Your task to perform on an android device: Open Google Chrome and click the shortcut for Amazon.com Image 0: 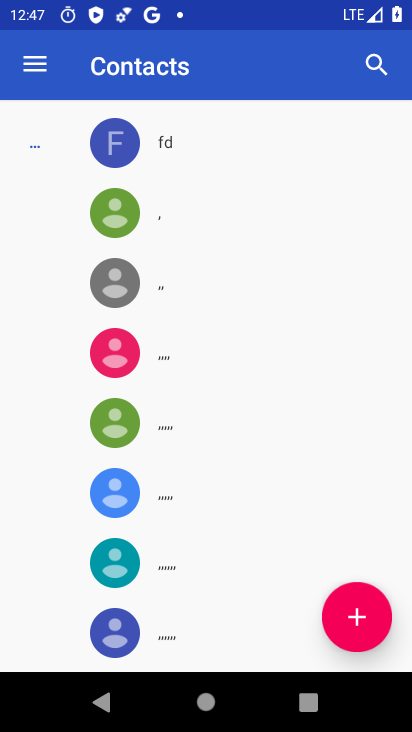
Step 0: press home button
Your task to perform on an android device: Open Google Chrome and click the shortcut for Amazon.com Image 1: 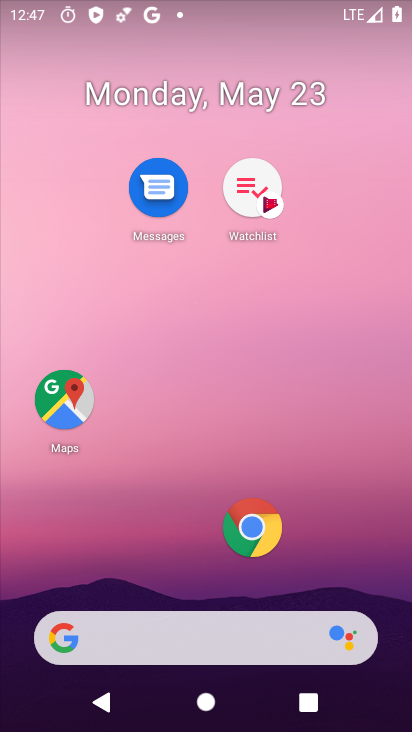
Step 1: drag from (371, 696) to (273, 100)
Your task to perform on an android device: Open Google Chrome and click the shortcut for Amazon.com Image 2: 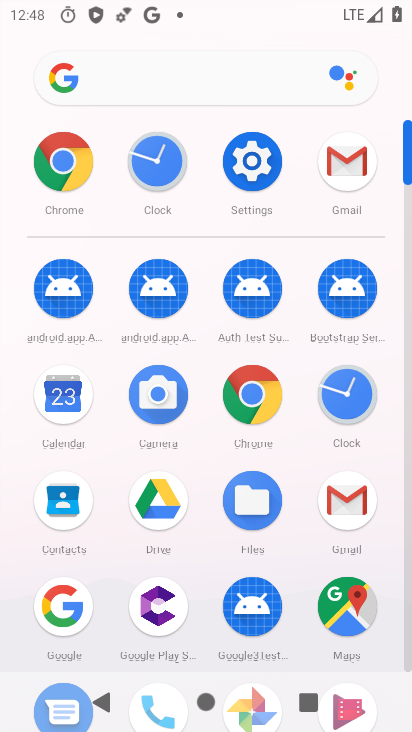
Step 2: click (264, 390)
Your task to perform on an android device: Open Google Chrome and click the shortcut for Amazon.com Image 3: 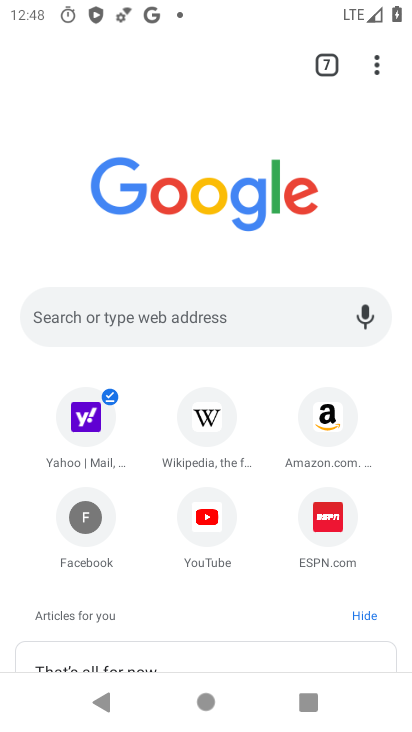
Step 3: click (322, 418)
Your task to perform on an android device: Open Google Chrome and click the shortcut for Amazon.com Image 4: 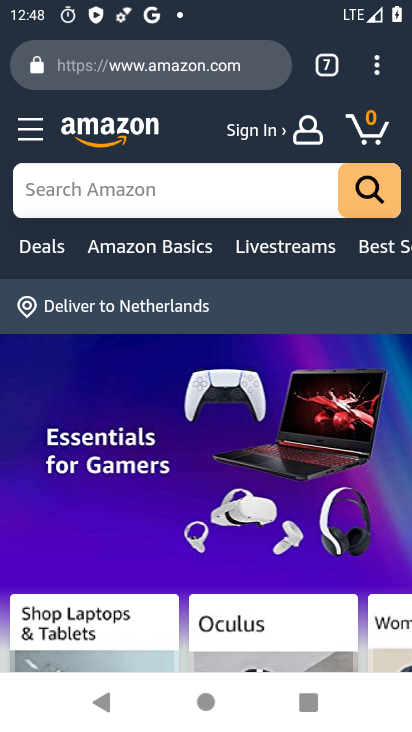
Step 4: task complete